Your task to perform on an android device: uninstall "Mercado Libre" Image 0: 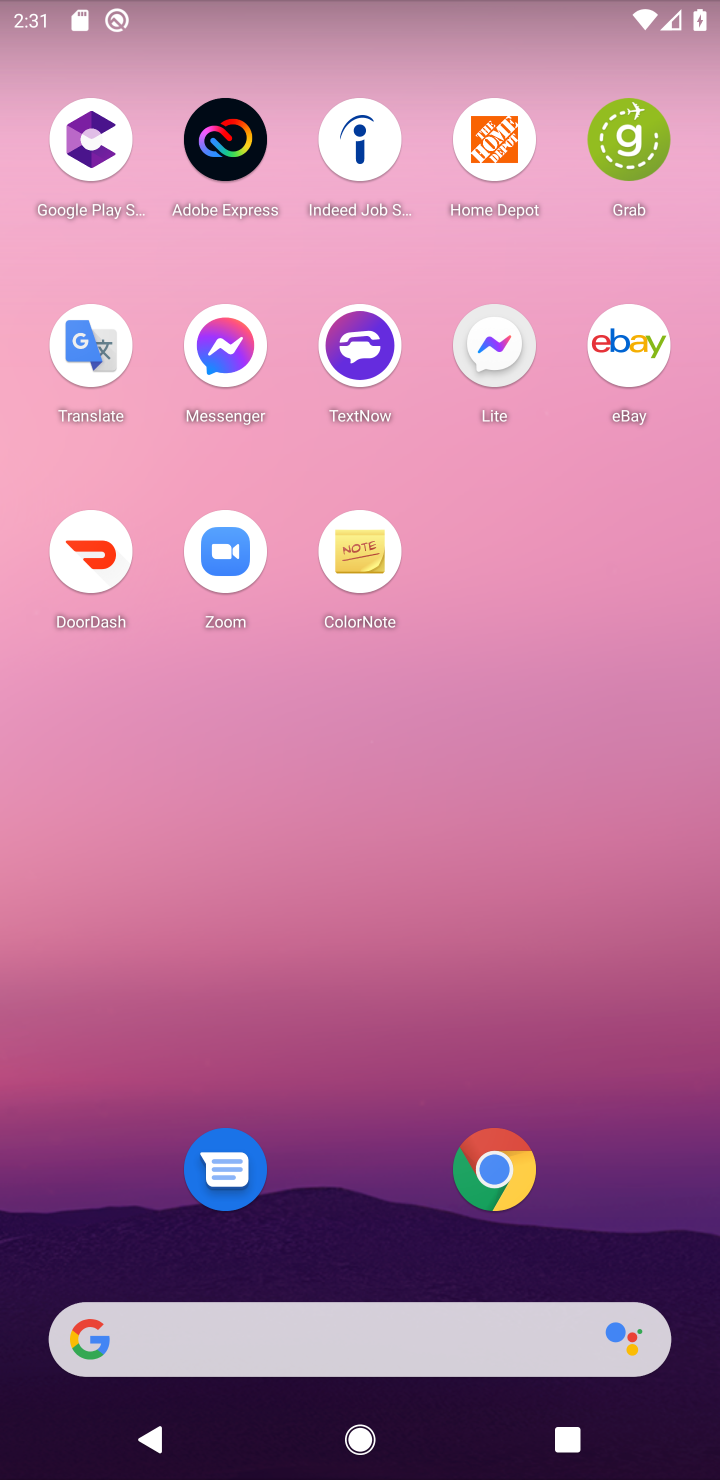
Step 0: drag from (369, 1251) to (203, 238)
Your task to perform on an android device: uninstall "Mercado Libre" Image 1: 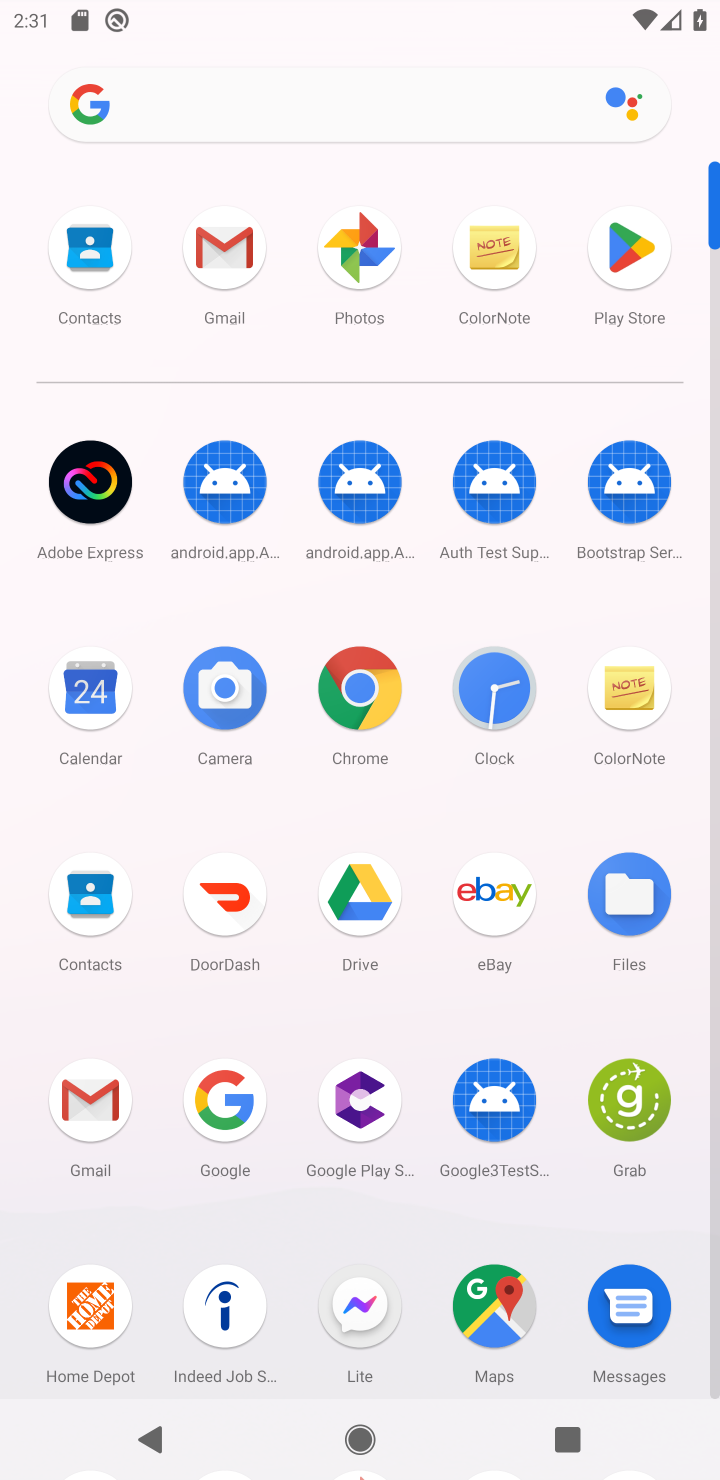
Step 1: click (608, 233)
Your task to perform on an android device: uninstall "Mercado Libre" Image 2: 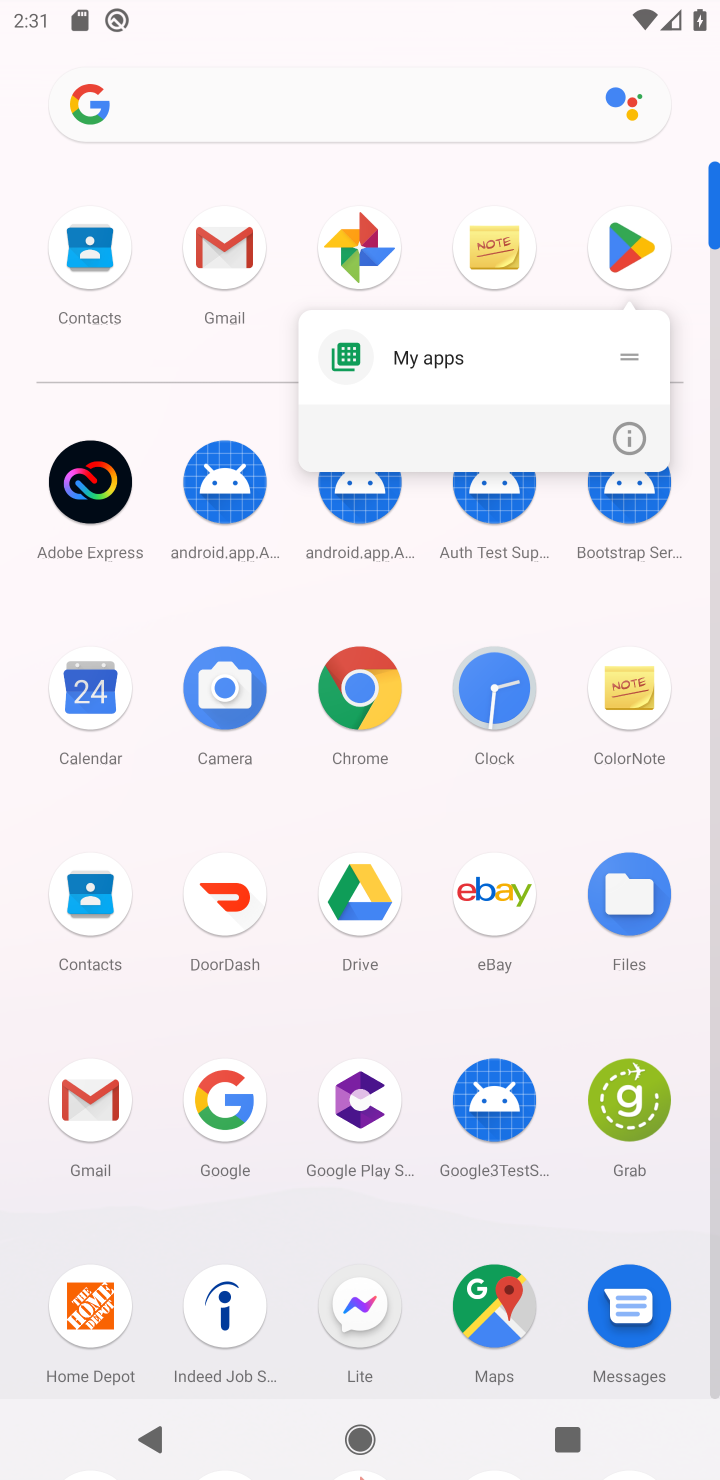
Step 2: click (608, 233)
Your task to perform on an android device: uninstall "Mercado Libre" Image 3: 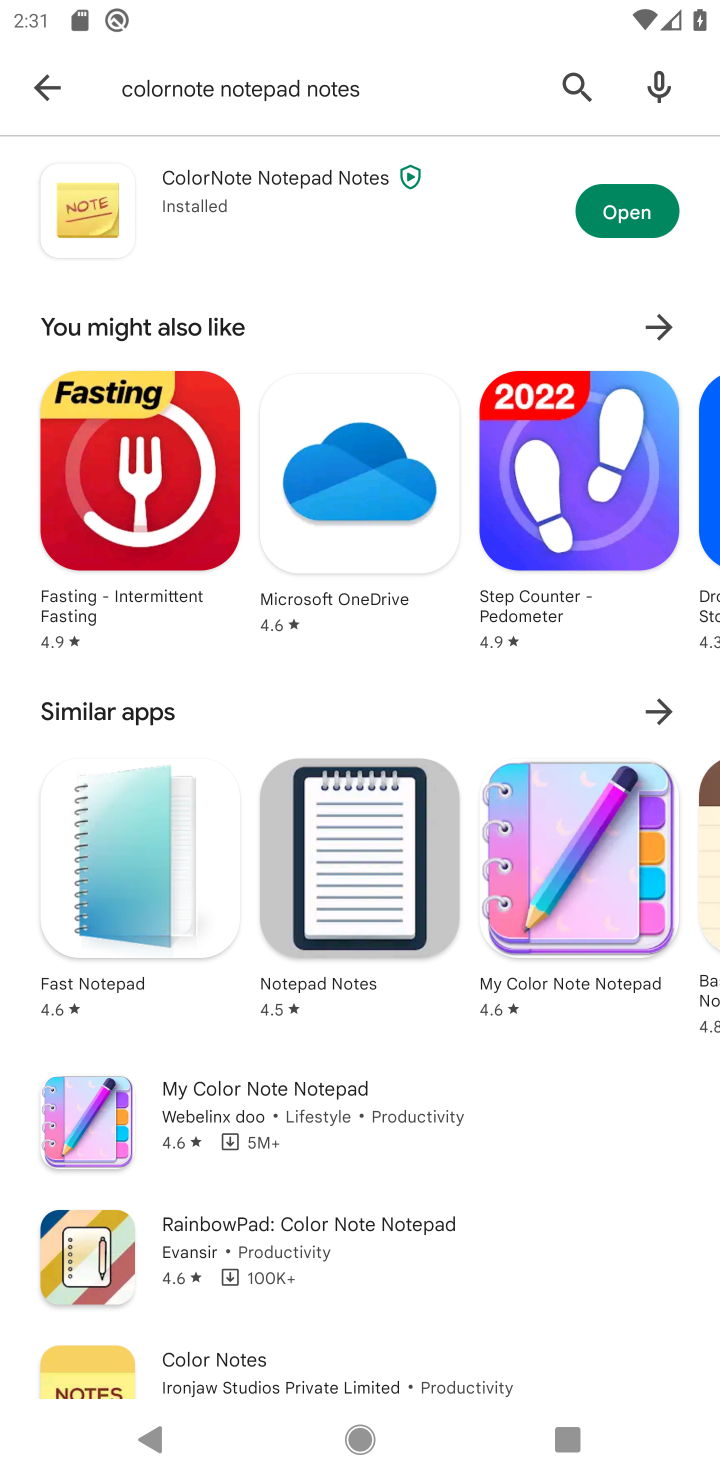
Step 3: click (573, 71)
Your task to perform on an android device: uninstall "Mercado Libre" Image 4: 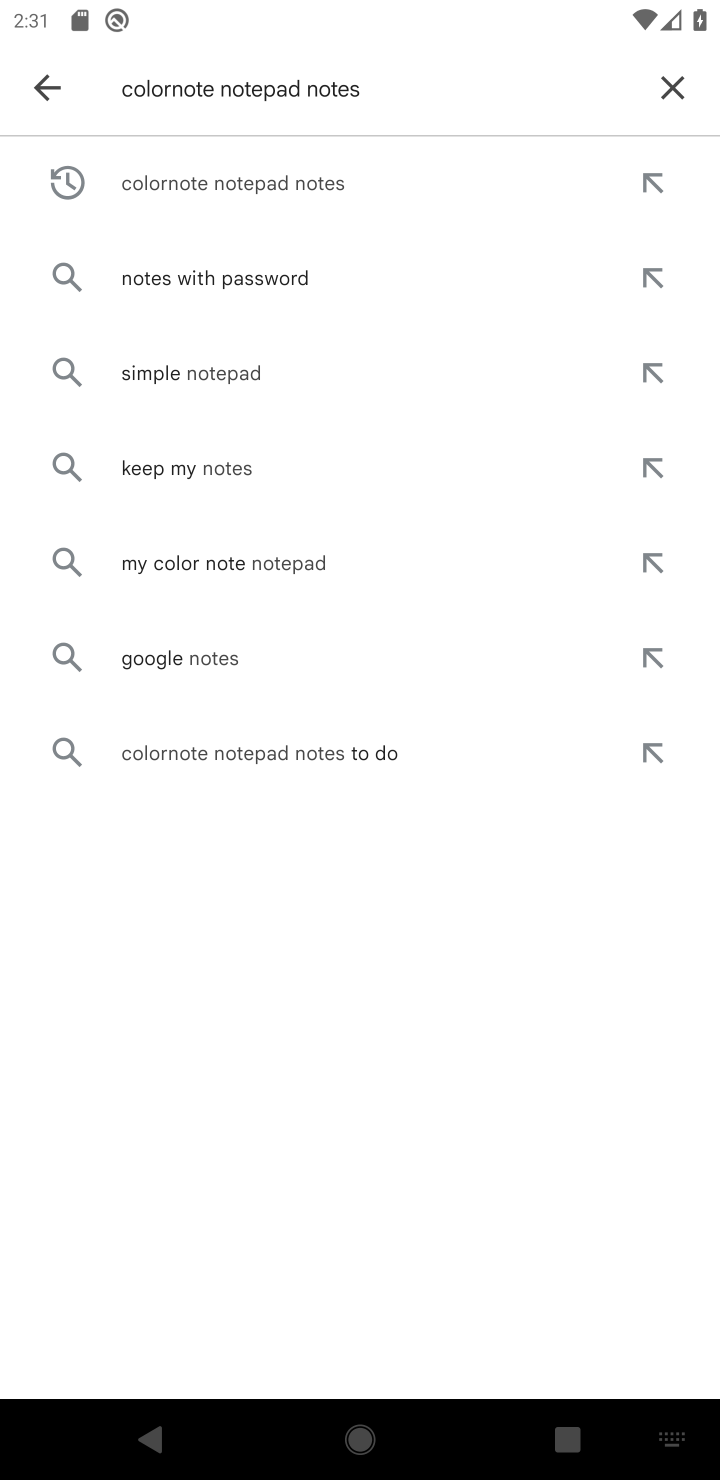
Step 4: click (662, 87)
Your task to perform on an android device: uninstall "Mercado Libre" Image 5: 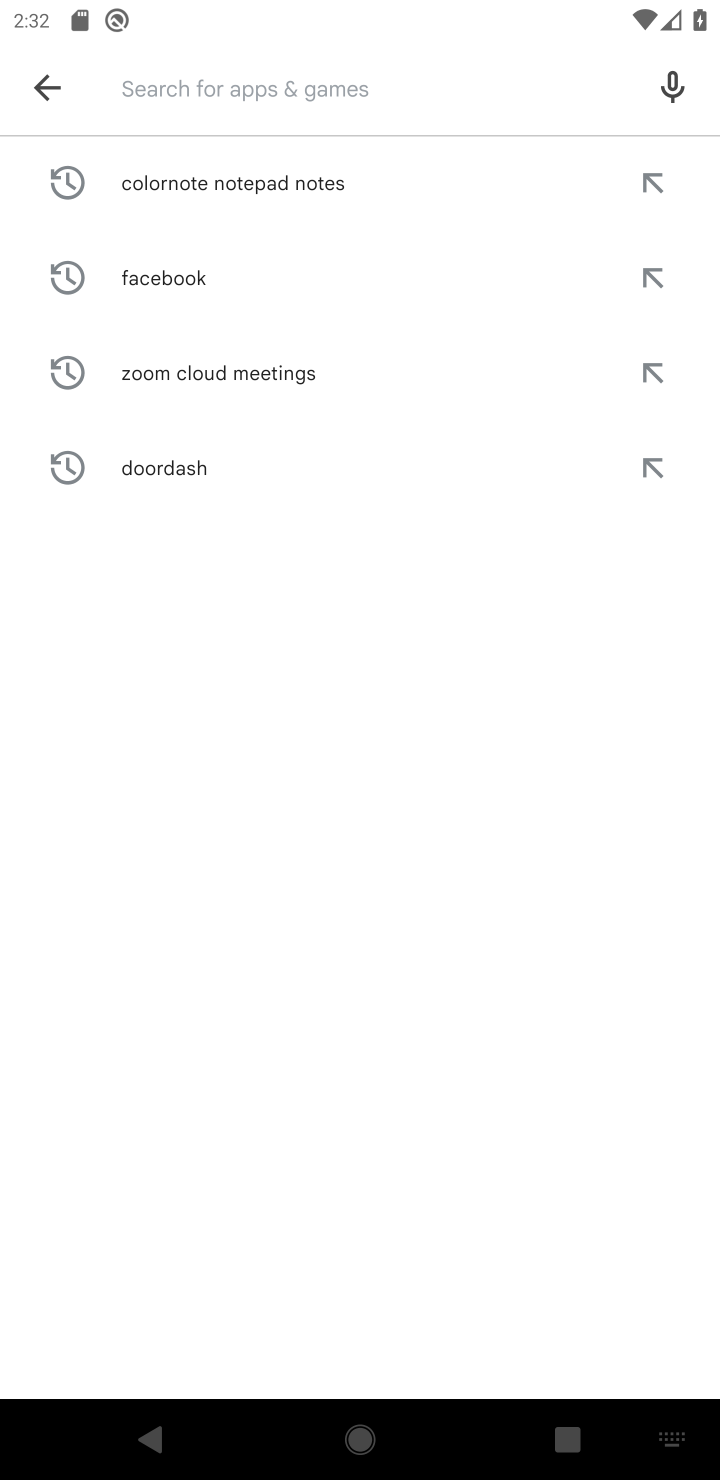
Step 5: type "Mercado Libr"
Your task to perform on an android device: uninstall "Mercado Libre" Image 6: 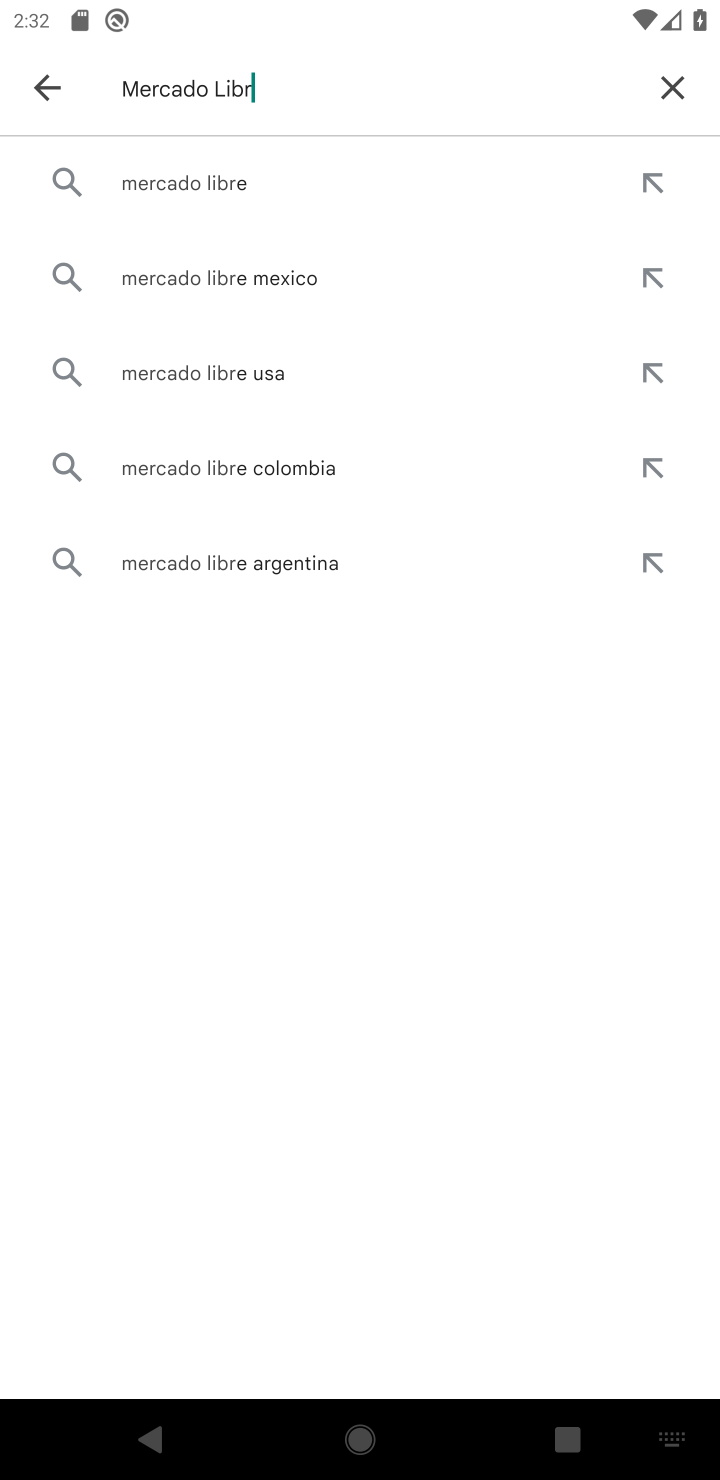
Step 6: click (192, 171)
Your task to perform on an android device: uninstall "Mercado Libre" Image 7: 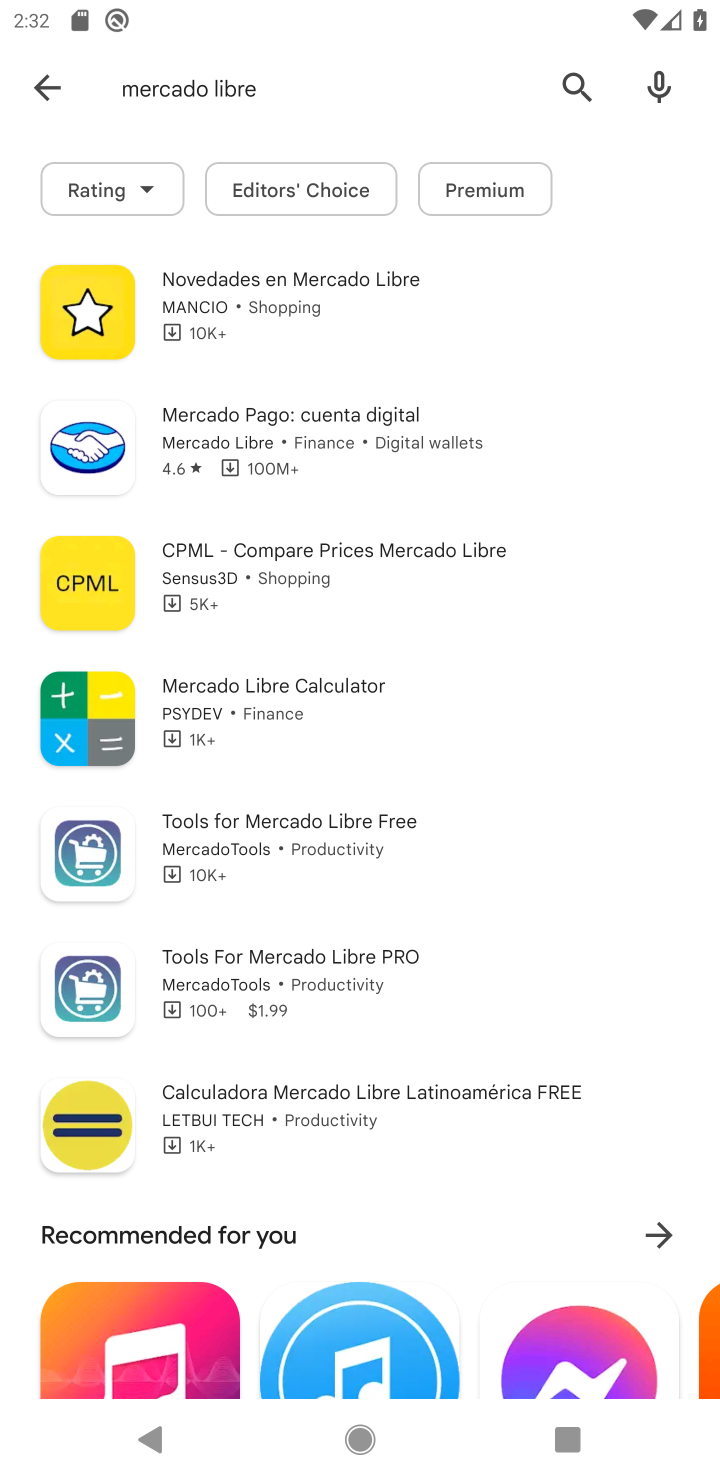
Step 7: task complete